Your task to perform on an android device: Play the last video I watched on Youtube Image 0: 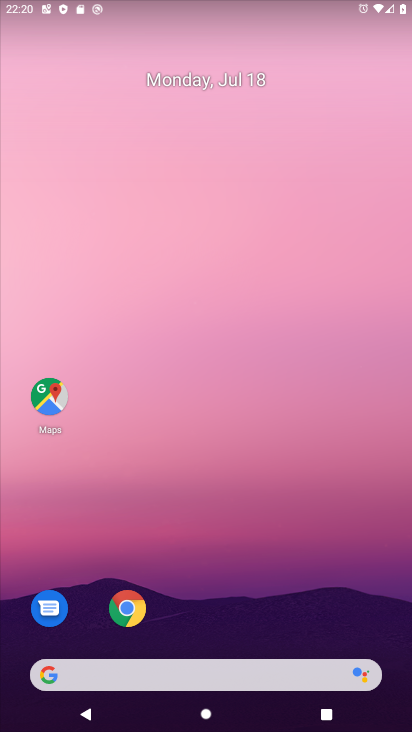
Step 0: drag from (24, 682) to (262, 59)
Your task to perform on an android device: Play the last video I watched on Youtube Image 1: 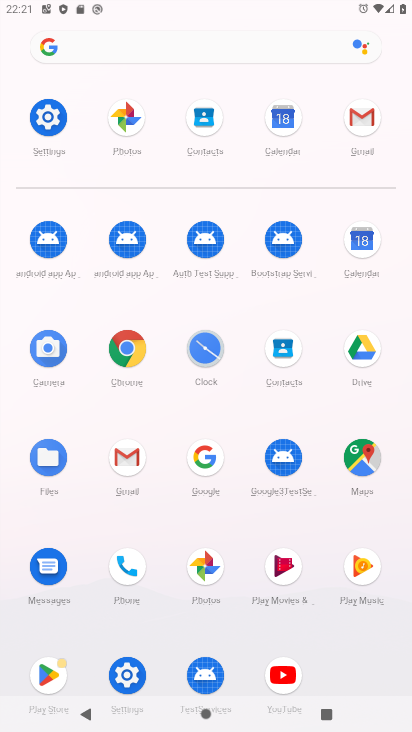
Step 1: click (292, 668)
Your task to perform on an android device: Play the last video I watched on Youtube Image 2: 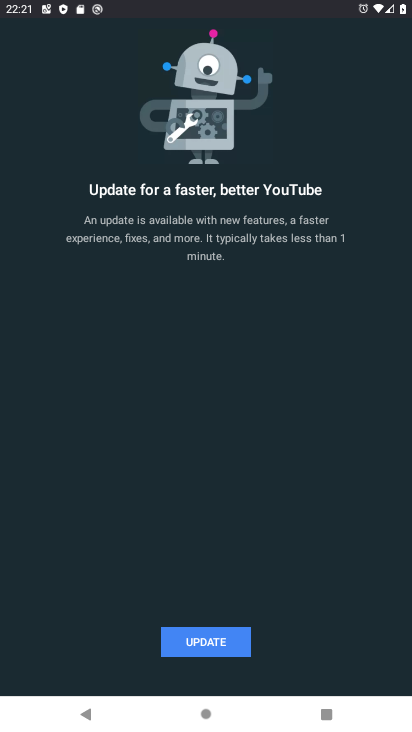
Step 2: task complete